Your task to perform on an android device: move an email to a new category in the gmail app Image 0: 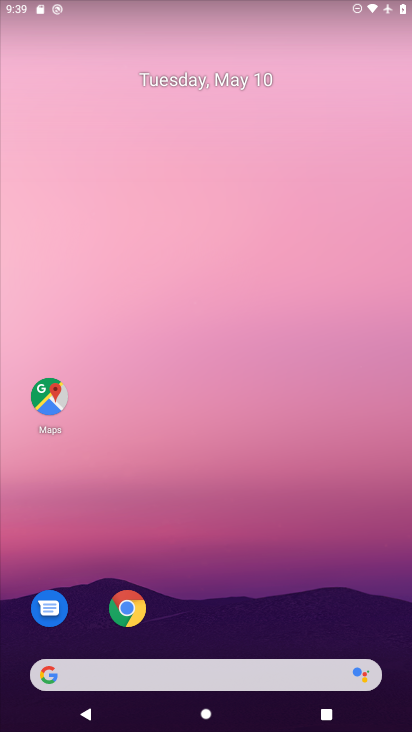
Step 0: drag from (273, 599) to (313, 202)
Your task to perform on an android device: move an email to a new category in the gmail app Image 1: 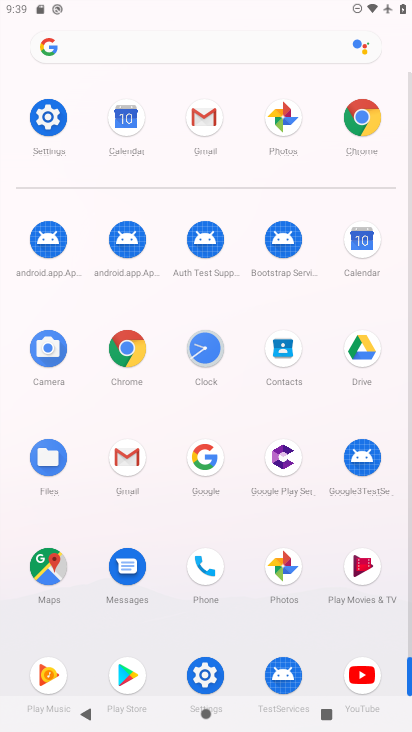
Step 1: click (199, 115)
Your task to perform on an android device: move an email to a new category in the gmail app Image 2: 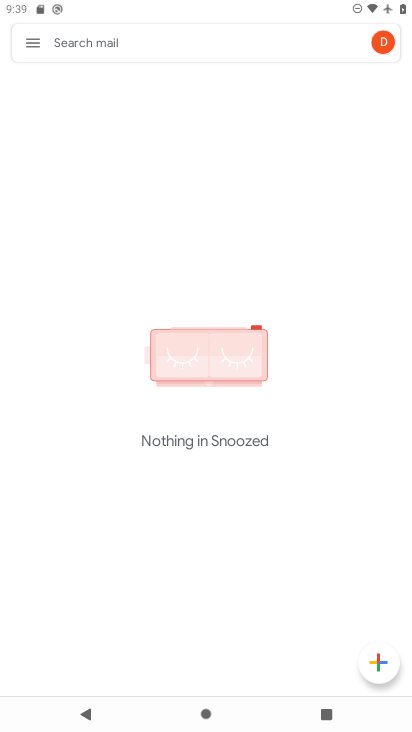
Step 2: click (29, 36)
Your task to perform on an android device: move an email to a new category in the gmail app Image 3: 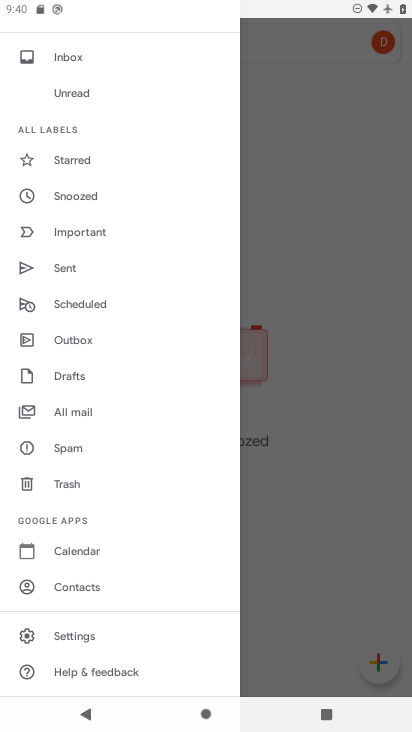
Step 3: drag from (113, 223) to (152, 584)
Your task to perform on an android device: move an email to a new category in the gmail app Image 4: 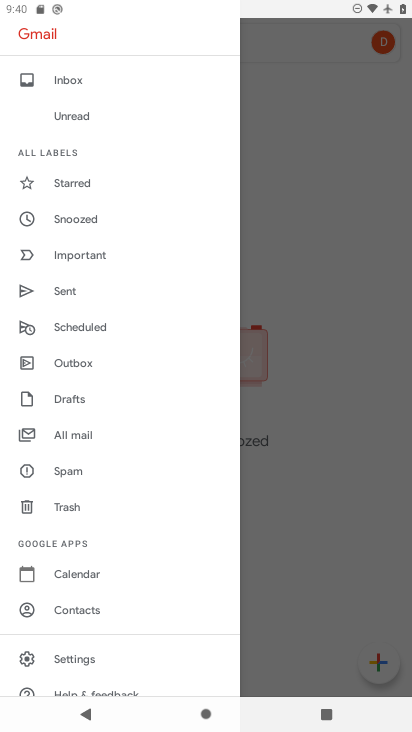
Step 4: click (84, 429)
Your task to perform on an android device: move an email to a new category in the gmail app Image 5: 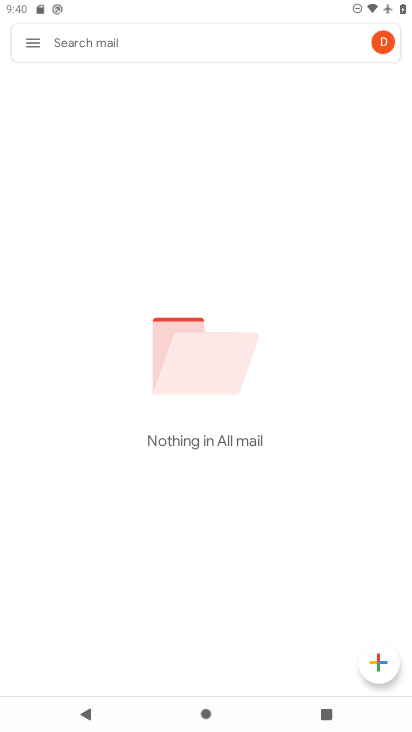
Step 5: task complete